Your task to perform on an android device: Go to battery settings Image 0: 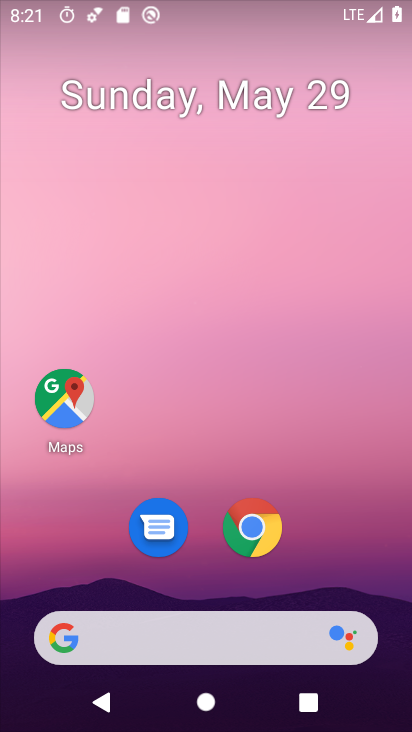
Step 0: press home button
Your task to perform on an android device: Go to battery settings Image 1: 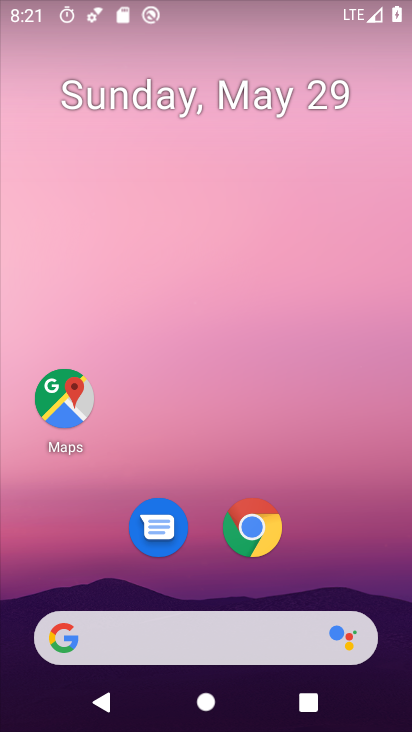
Step 1: drag from (205, 580) to (199, 121)
Your task to perform on an android device: Go to battery settings Image 2: 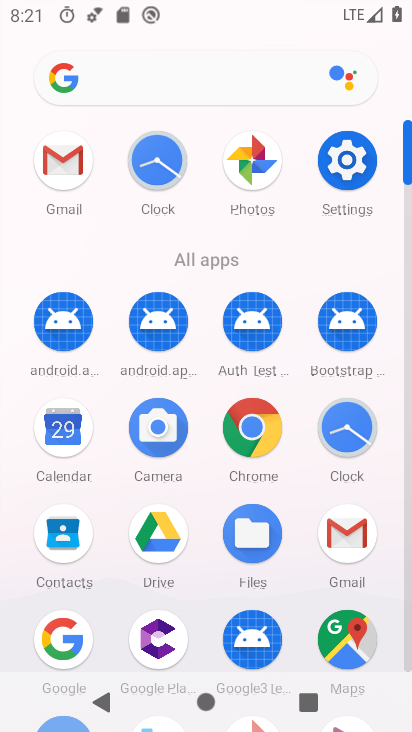
Step 2: click (345, 154)
Your task to perform on an android device: Go to battery settings Image 3: 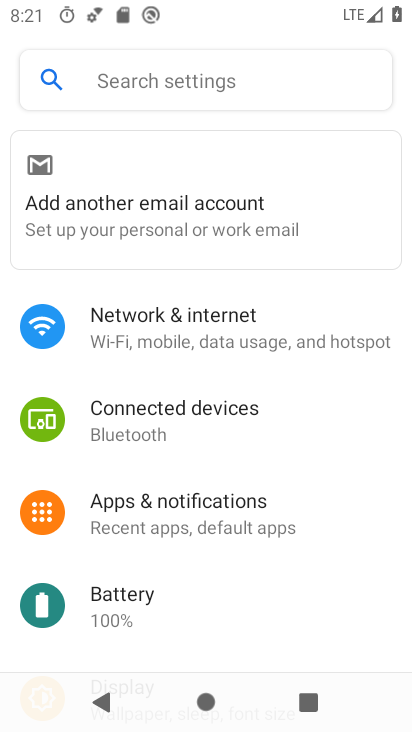
Step 3: click (184, 601)
Your task to perform on an android device: Go to battery settings Image 4: 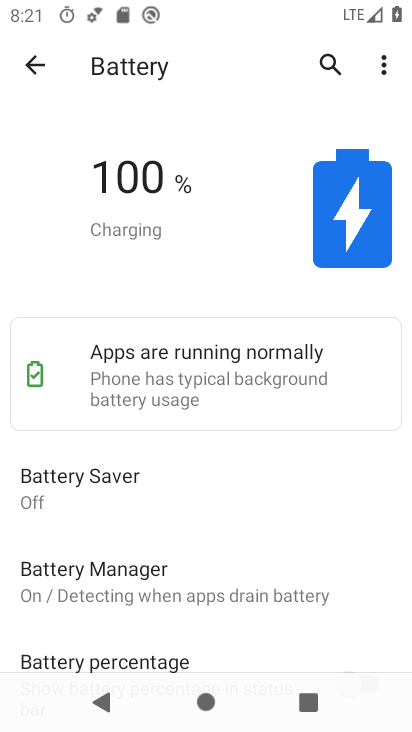
Step 4: task complete